Your task to perform on an android device: Open my contact list Image 0: 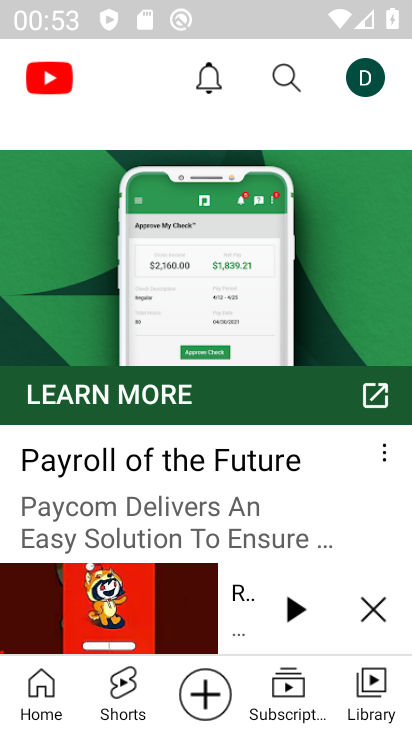
Step 0: press home button
Your task to perform on an android device: Open my contact list Image 1: 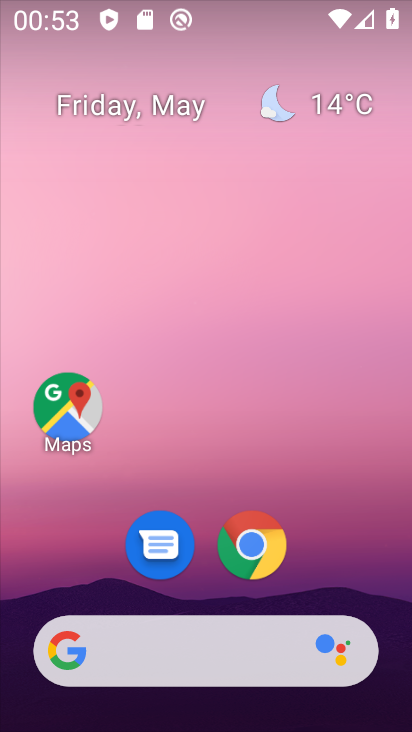
Step 1: drag from (307, 588) to (293, 131)
Your task to perform on an android device: Open my contact list Image 2: 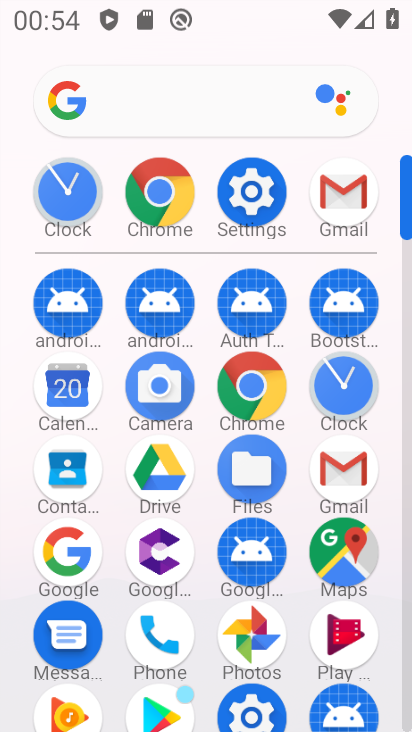
Step 2: click (66, 487)
Your task to perform on an android device: Open my contact list Image 3: 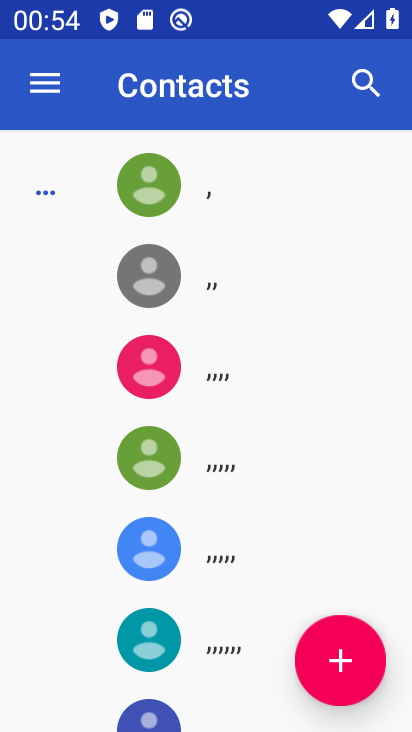
Step 3: task complete